Your task to perform on an android device: Open Maps and search for coffee Image 0: 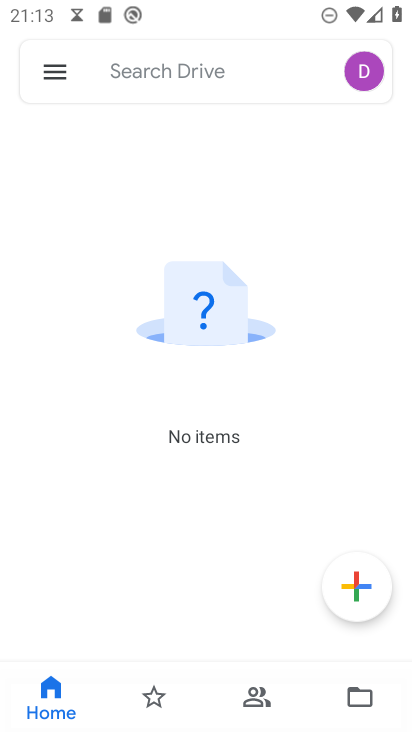
Step 0: press home button
Your task to perform on an android device: Open Maps and search for coffee Image 1: 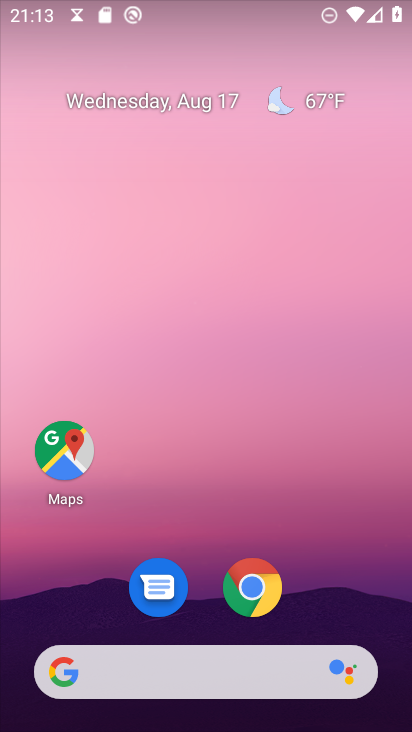
Step 1: click (112, 687)
Your task to perform on an android device: Open Maps and search for coffee Image 2: 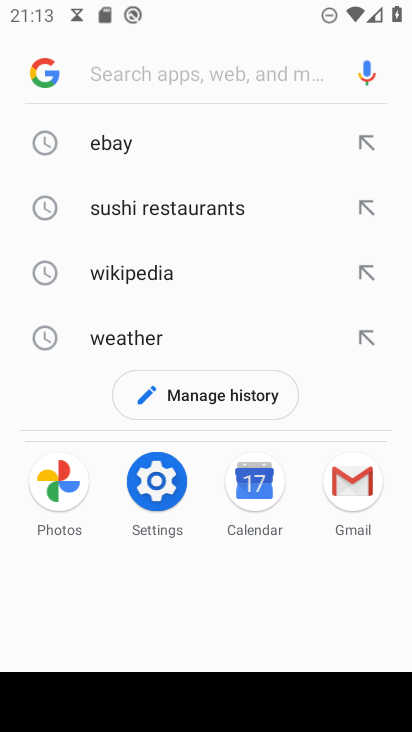
Step 2: type "coffee"
Your task to perform on an android device: Open Maps and search for coffee Image 3: 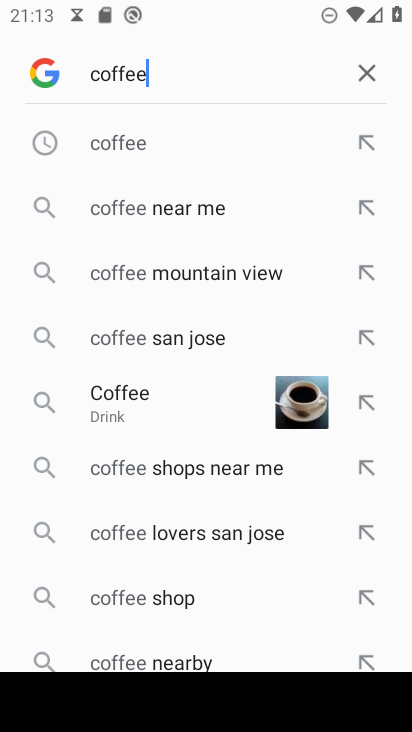
Step 3: click (134, 135)
Your task to perform on an android device: Open Maps and search for coffee Image 4: 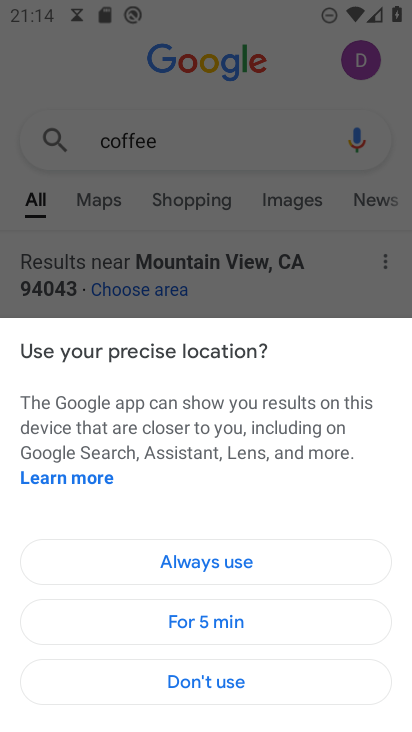
Step 4: task complete